Your task to perform on an android device: See recent photos Image 0: 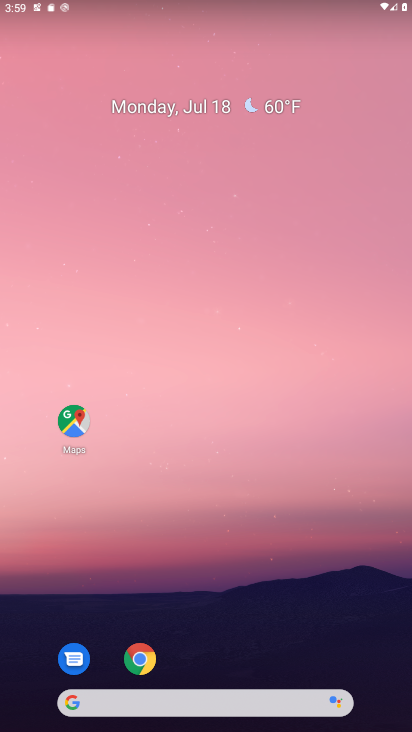
Step 0: drag from (197, 637) to (250, 46)
Your task to perform on an android device: See recent photos Image 1: 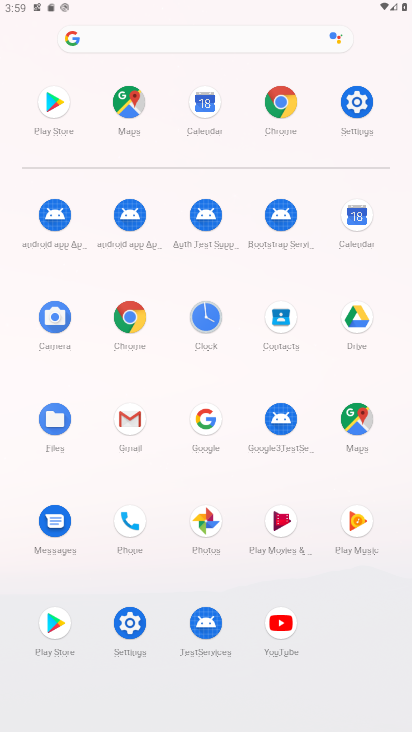
Step 1: click (198, 528)
Your task to perform on an android device: See recent photos Image 2: 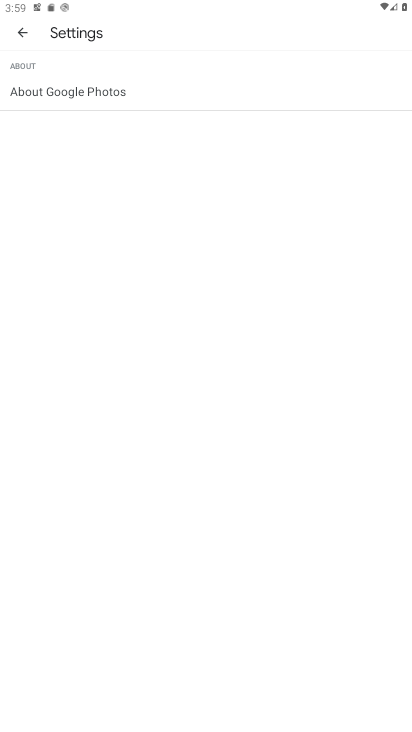
Step 2: press back button
Your task to perform on an android device: See recent photos Image 3: 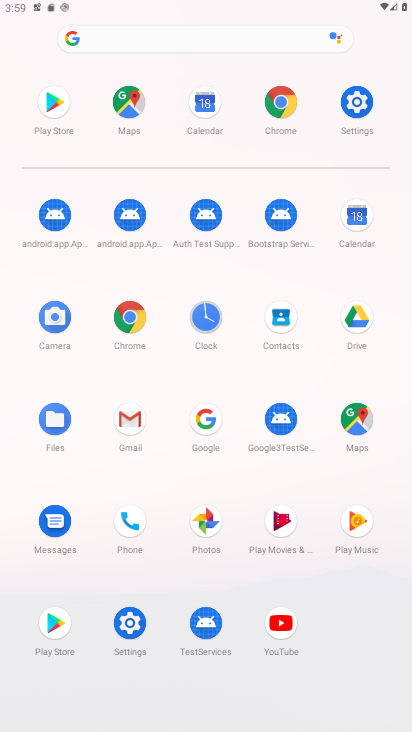
Step 3: click (217, 528)
Your task to perform on an android device: See recent photos Image 4: 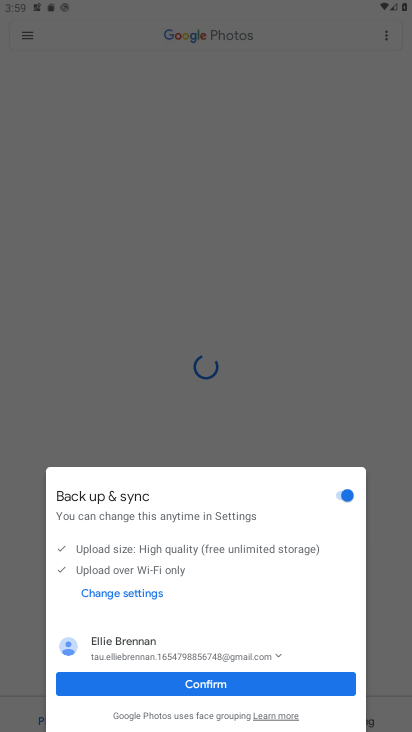
Step 4: click (238, 688)
Your task to perform on an android device: See recent photos Image 5: 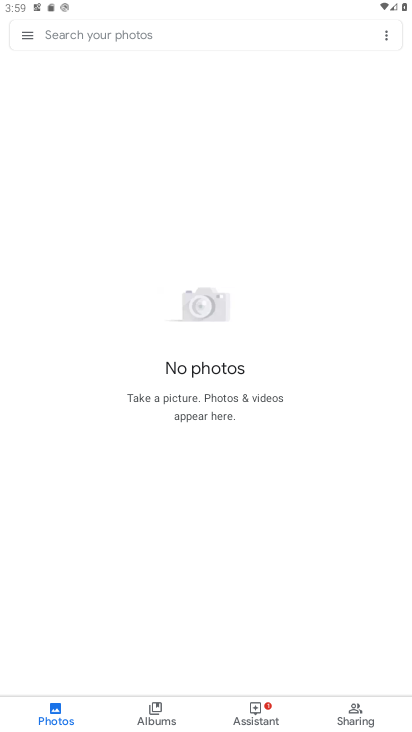
Step 5: task complete